Your task to perform on an android device: visit the assistant section in the google photos Image 0: 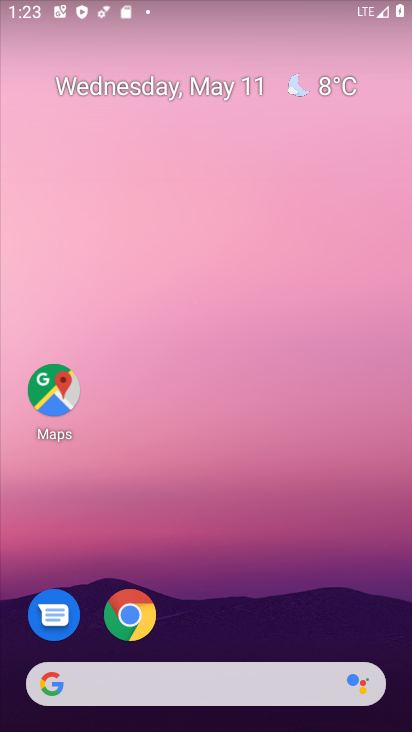
Step 0: drag from (321, 542) to (286, 130)
Your task to perform on an android device: visit the assistant section in the google photos Image 1: 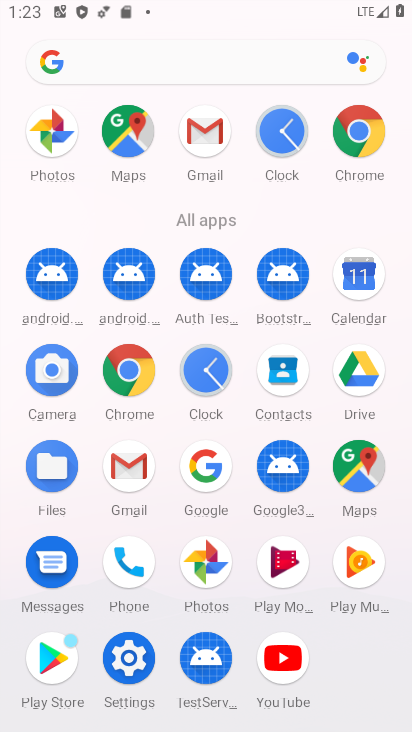
Step 1: click (207, 570)
Your task to perform on an android device: visit the assistant section in the google photos Image 2: 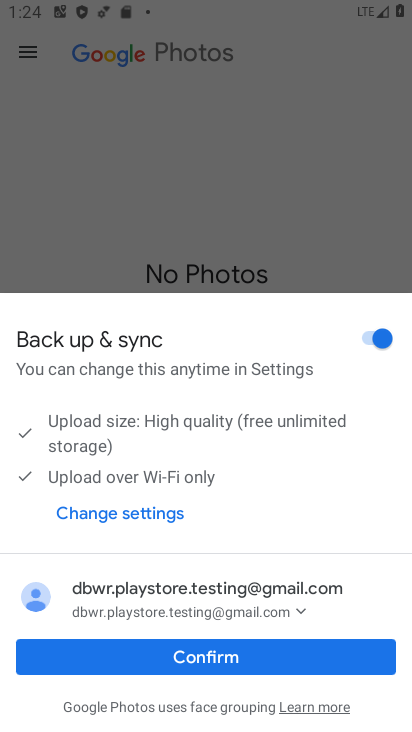
Step 2: click (232, 656)
Your task to perform on an android device: visit the assistant section in the google photos Image 3: 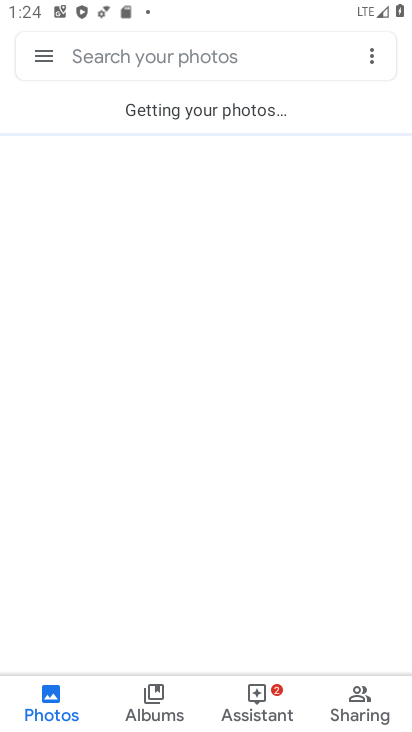
Step 3: click (272, 698)
Your task to perform on an android device: visit the assistant section in the google photos Image 4: 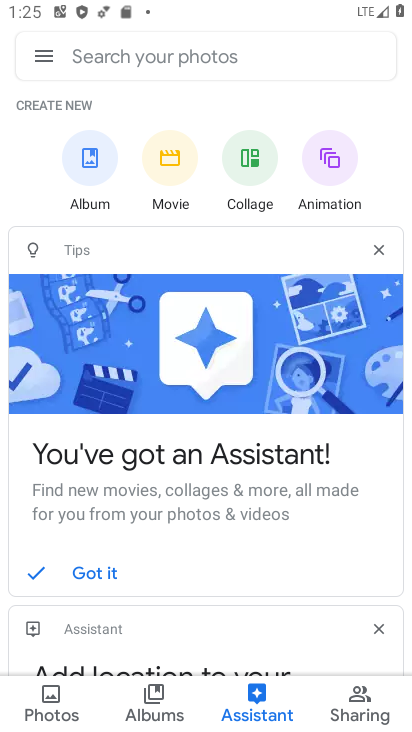
Step 4: task complete